Your task to perform on an android device: Open battery settings Image 0: 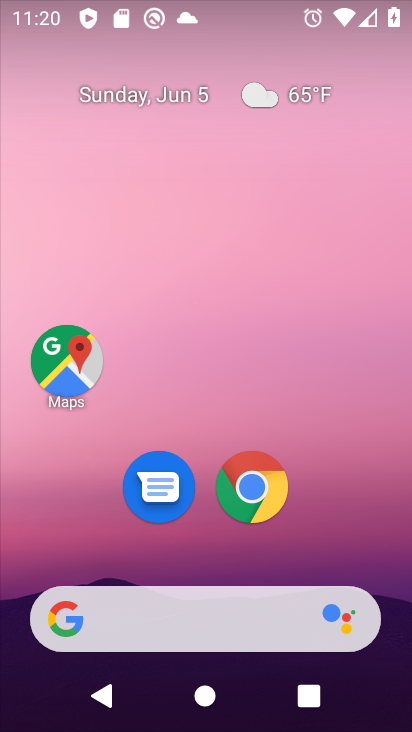
Step 0: drag from (341, 525) to (273, 31)
Your task to perform on an android device: Open battery settings Image 1: 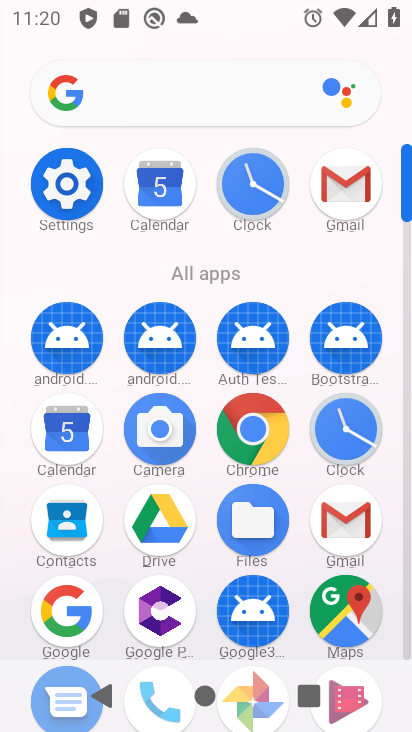
Step 1: click (64, 182)
Your task to perform on an android device: Open battery settings Image 2: 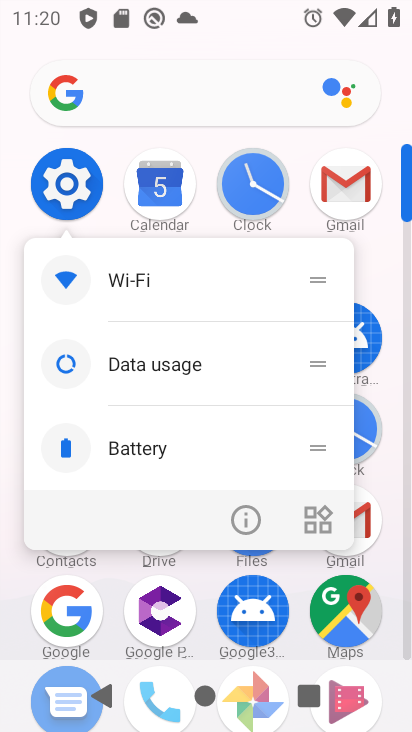
Step 2: click (64, 182)
Your task to perform on an android device: Open battery settings Image 3: 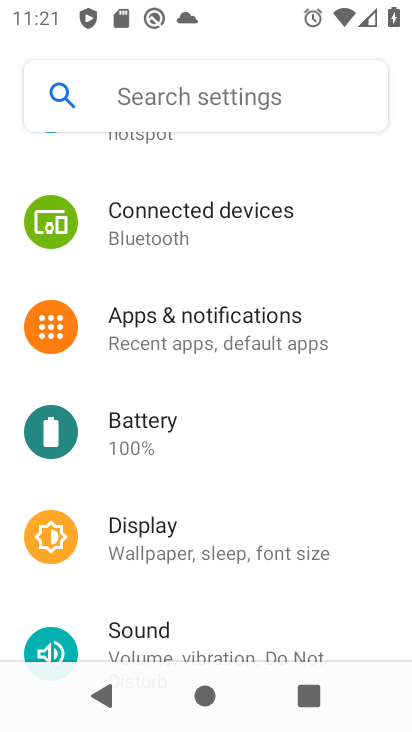
Step 3: click (152, 422)
Your task to perform on an android device: Open battery settings Image 4: 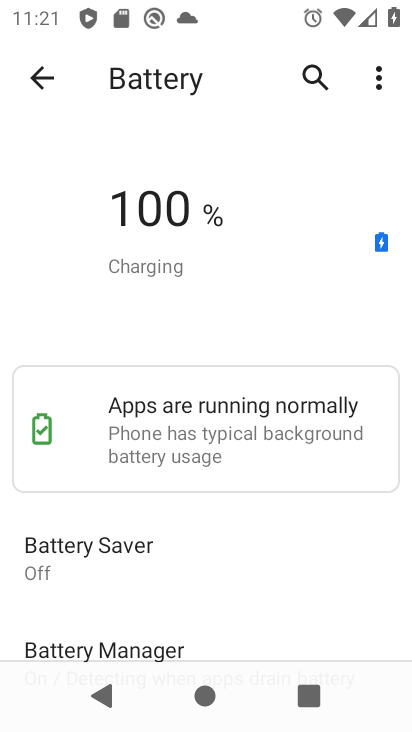
Step 4: task complete